Your task to perform on an android device: Open CNN.com Image 0: 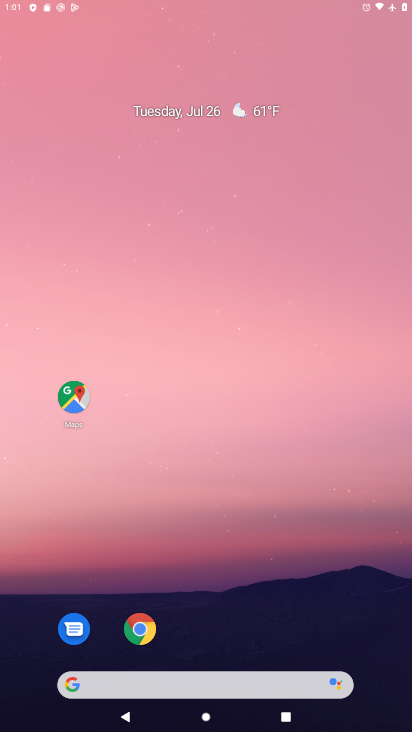
Step 0: press home button
Your task to perform on an android device: Open CNN.com Image 1: 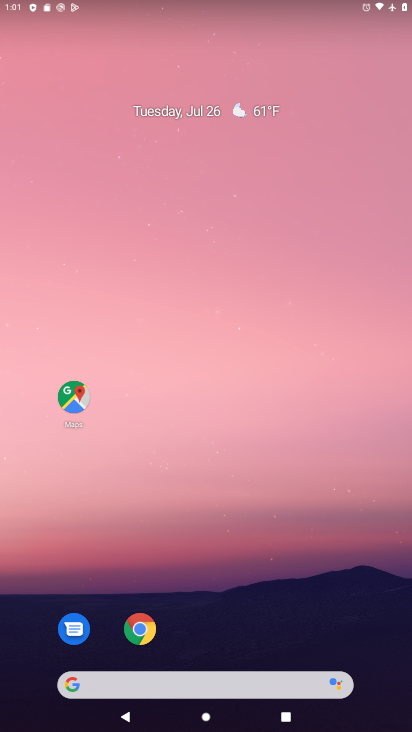
Step 1: drag from (197, 655) to (118, 58)
Your task to perform on an android device: Open CNN.com Image 2: 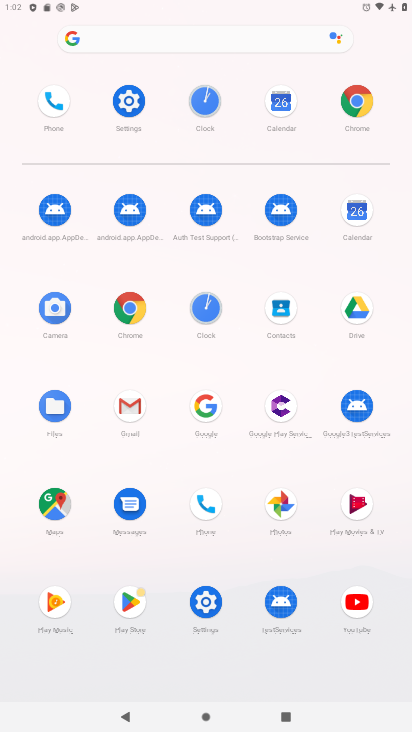
Step 2: click (135, 317)
Your task to perform on an android device: Open CNN.com Image 3: 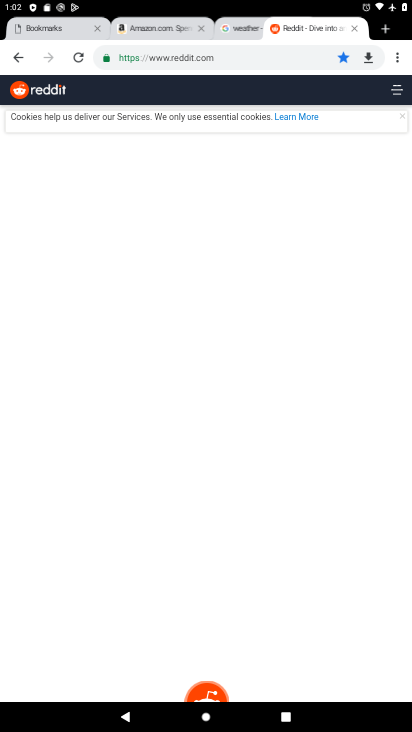
Step 3: click (386, 28)
Your task to perform on an android device: Open CNN.com Image 4: 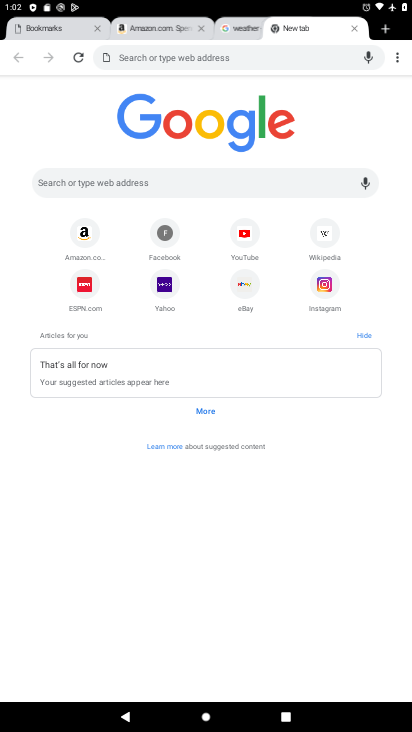
Step 4: click (122, 194)
Your task to perform on an android device: Open CNN.com Image 5: 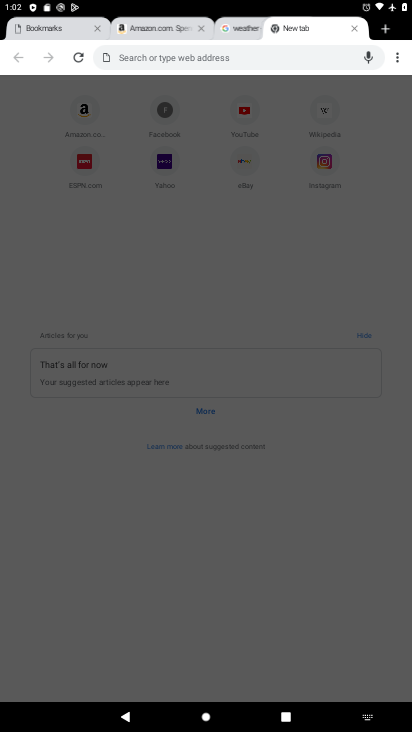
Step 5: type "cnn"
Your task to perform on an android device: Open CNN.com Image 6: 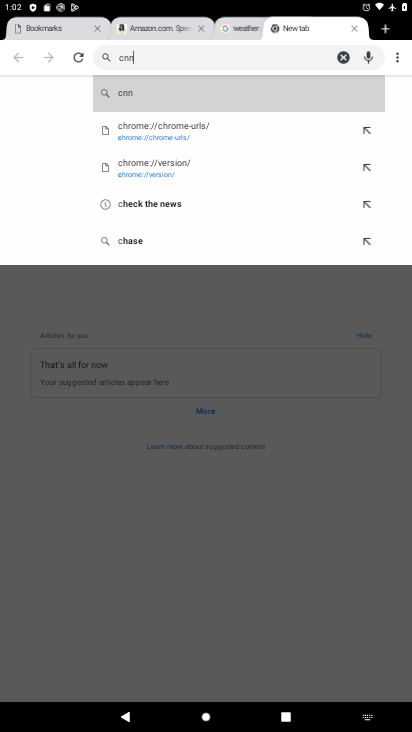
Step 6: type ""
Your task to perform on an android device: Open CNN.com Image 7: 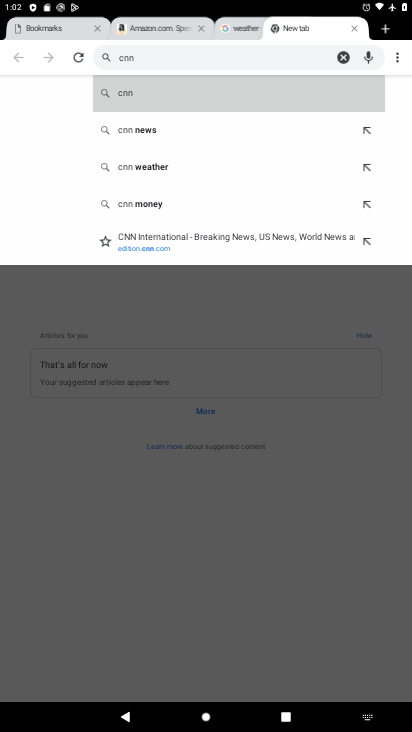
Step 7: click (141, 233)
Your task to perform on an android device: Open CNN.com Image 8: 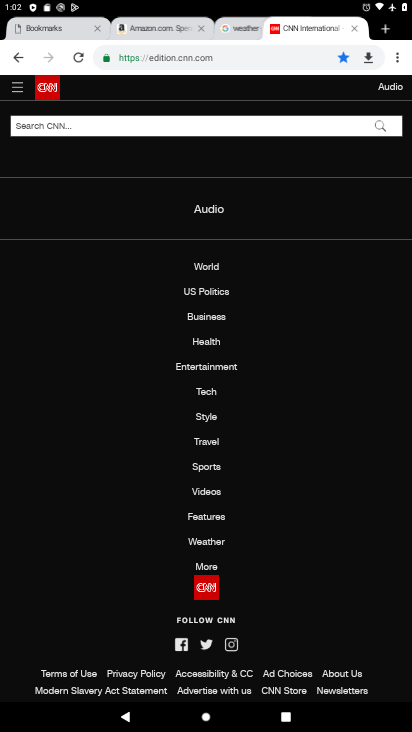
Step 8: task complete